Your task to perform on an android device: Open calendar and show me the first week of next month Image 0: 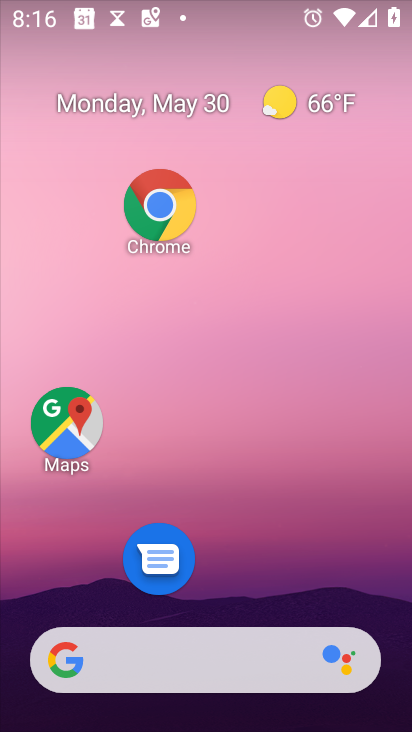
Step 0: drag from (178, 646) to (143, 225)
Your task to perform on an android device: Open calendar and show me the first week of next month Image 1: 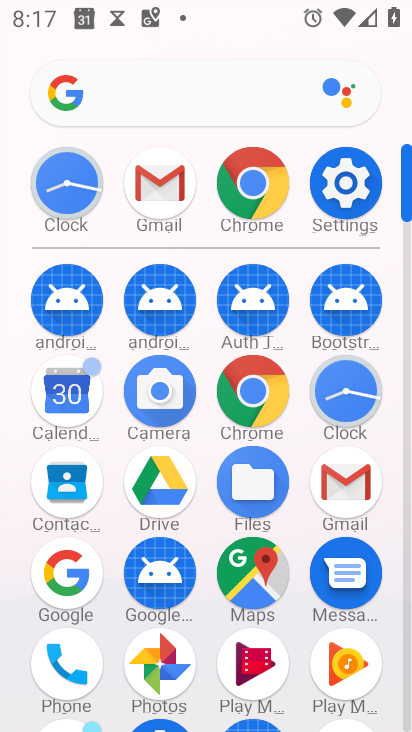
Step 1: click (54, 406)
Your task to perform on an android device: Open calendar and show me the first week of next month Image 2: 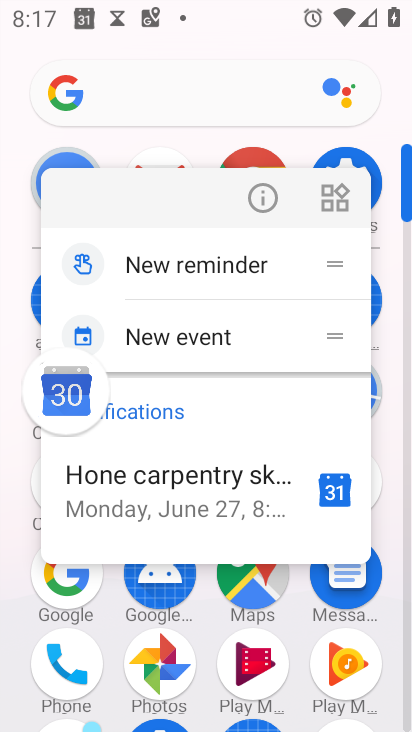
Step 2: click (63, 402)
Your task to perform on an android device: Open calendar and show me the first week of next month Image 3: 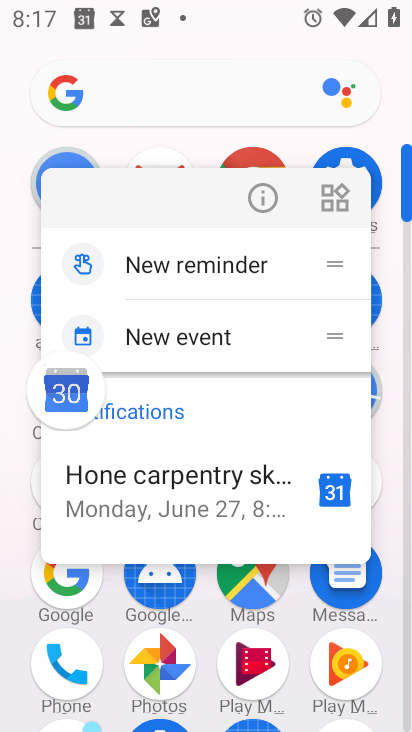
Step 3: click (63, 402)
Your task to perform on an android device: Open calendar and show me the first week of next month Image 4: 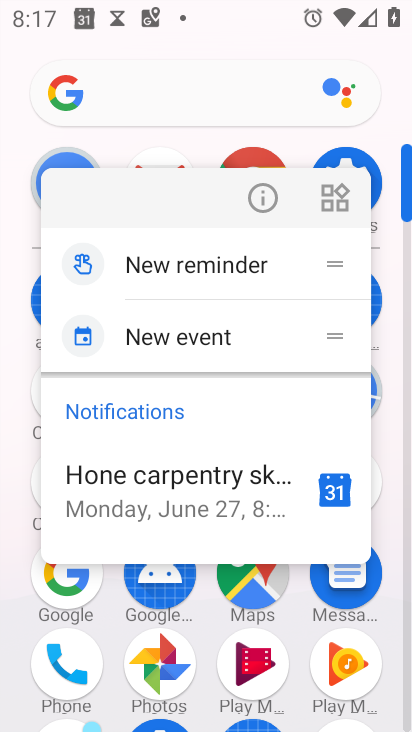
Step 4: click (66, 401)
Your task to perform on an android device: Open calendar and show me the first week of next month Image 5: 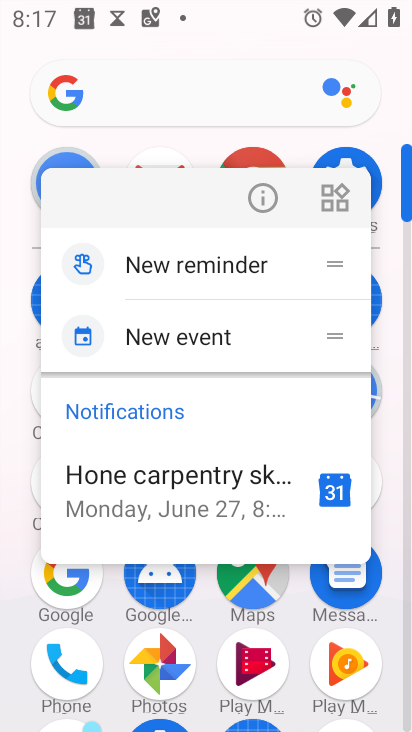
Step 5: click (192, 340)
Your task to perform on an android device: Open calendar and show me the first week of next month Image 6: 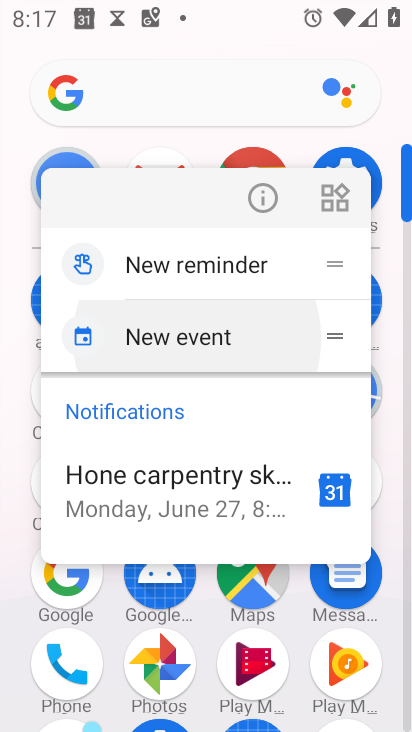
Step 6: click (192, 340)
Your task to perform on an android device: Open calendar and show me the first week of next month Image 7: 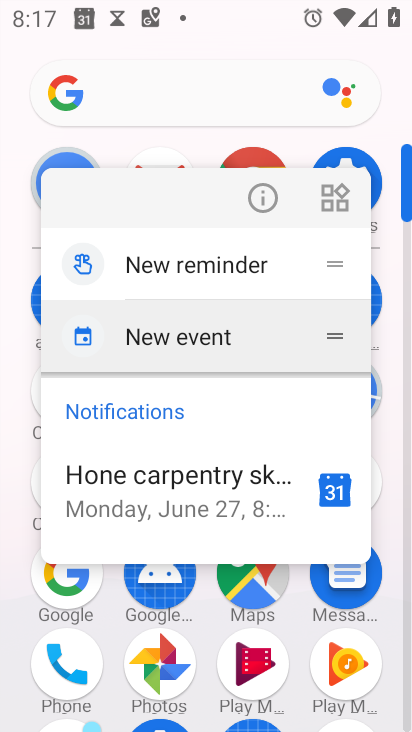
Step 7: click (191, 341)
Your task to perform on an android device: Open calendar and show me the first week of next month Image 8: 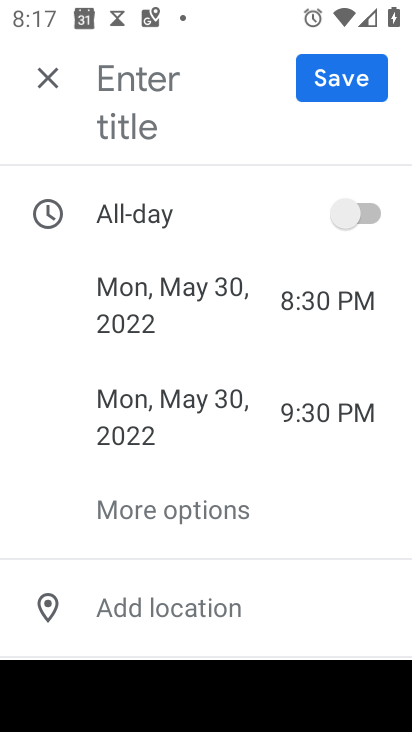
Step 8: click (45, 75)
Your task to perform on an android device: Open calendar and show me the first week of next month Image 9: 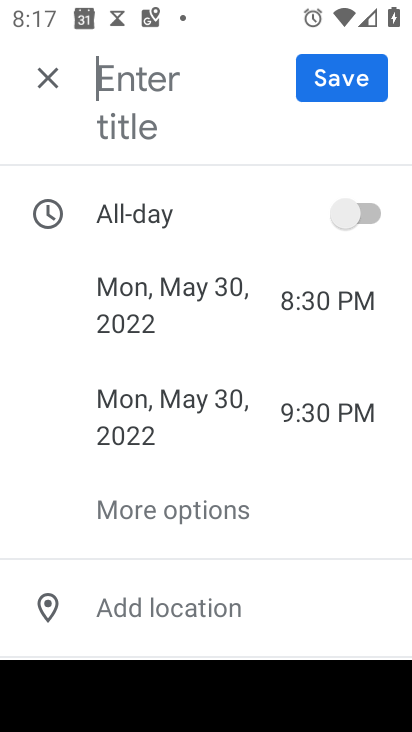
Step 9: click (48, 78)
Your task to perform on an android device: Open calendar and show me the first week of next month Image 10: 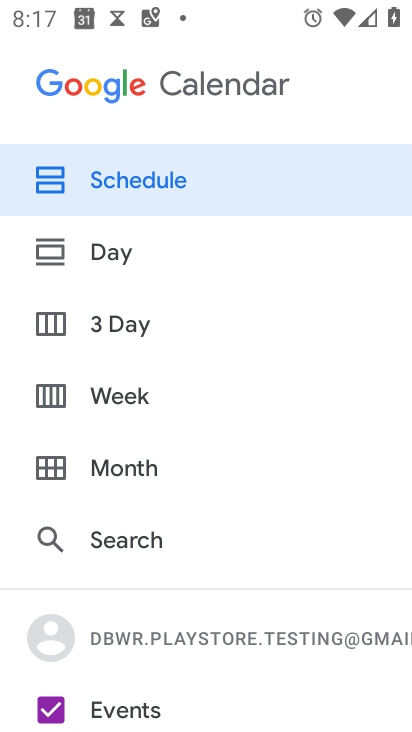
Step 10: click (124, 190)
Your task to perform on an android device: Open calendar and show me the first week of next month Image 11: 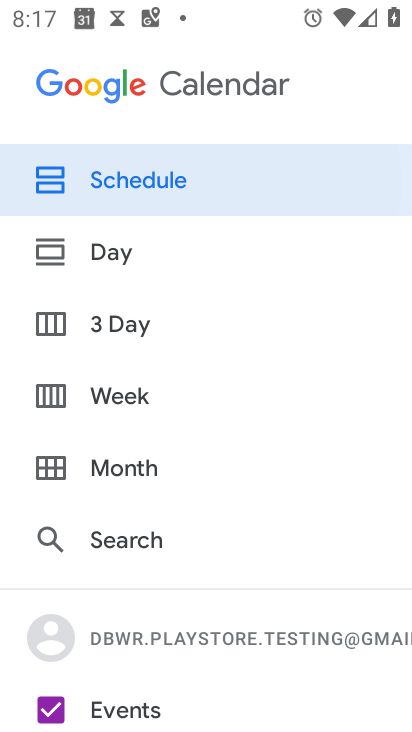
Step 11: click (124, 190)
Your task to perform on an android device: Open calendar and show me the first week of next month Image 12: 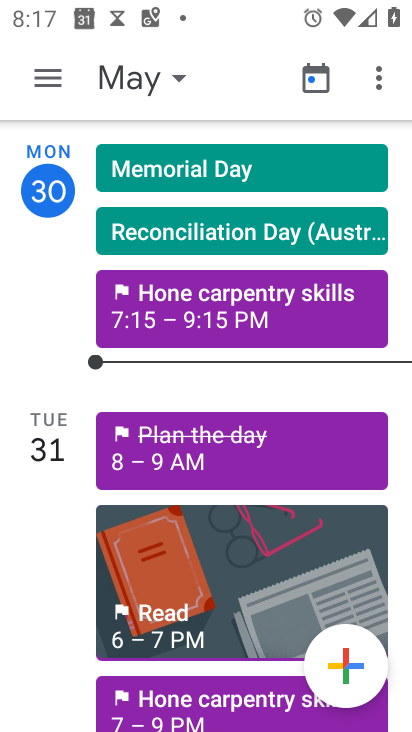
Step 12: click (177, 80)
Your task to perform on an android device: Open calendar and show me the first week of next month Image 13: 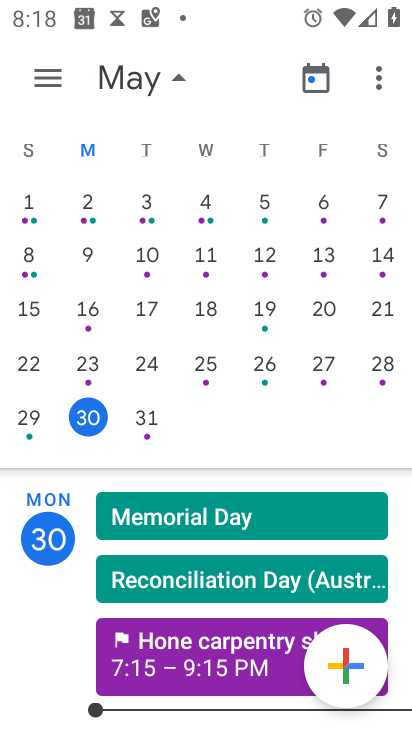
Step 13: drag from (346, 274) to (17, 251)
Your task to perform on an android device: Open calendar and show me the first week of next month Image 14: 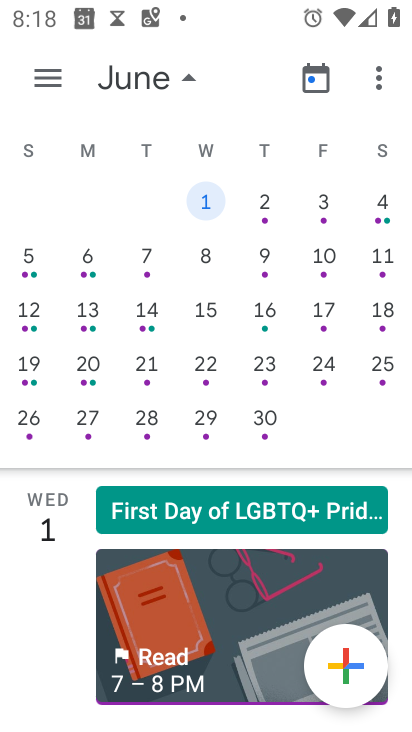
Step 14: click (261, 203)
Your task to perform on an android device: Open calendar and show me the first week of next month Image 15: 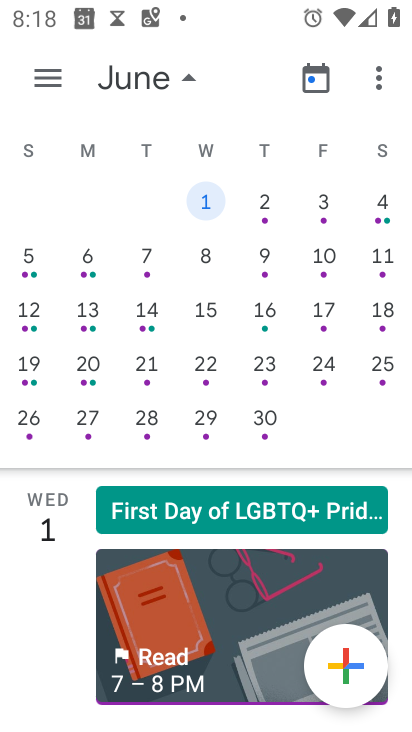
Step 15: click (260, 203)
Your task to perform on an android device: Open calendar and show me the first week of next month Image 16: 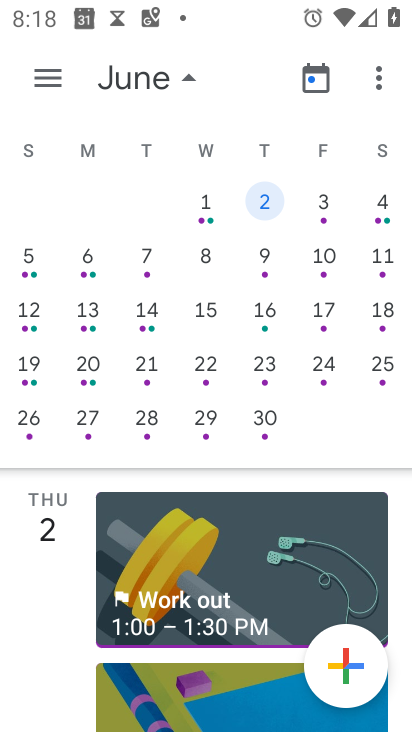
Step 16: click (261, 204)
Your task to perform on an android device: Open calendar and show me the first week of next month Image 17: 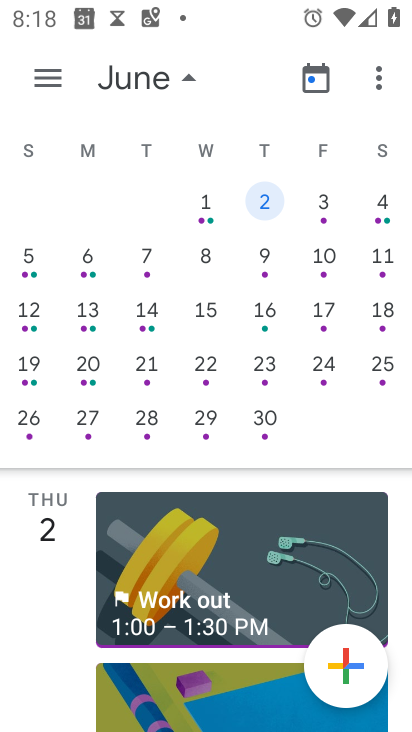
Step 17: task complete